Your task to perform on an android device: open app "Clock" Image 0: 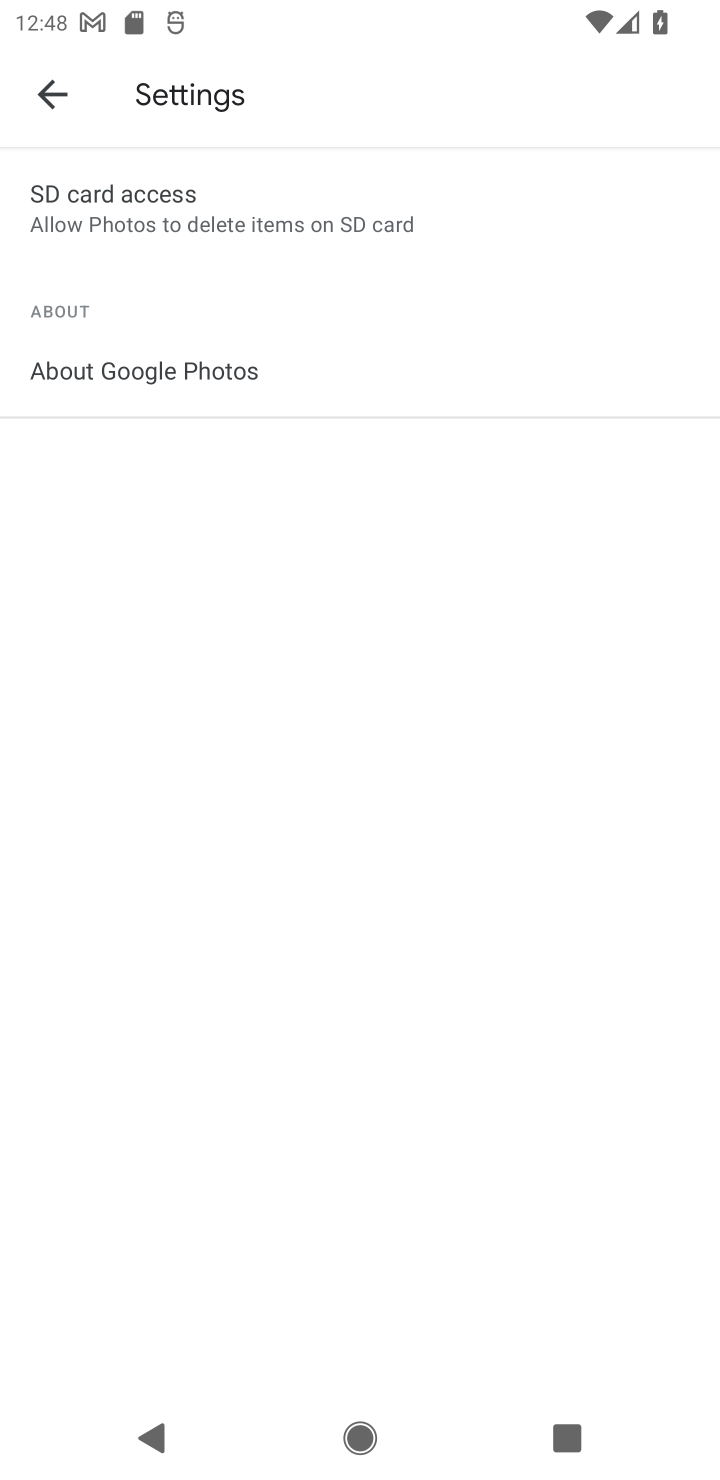
Step 0: press home button
Your task to perform on an android device: open app "Clock" Image 1: 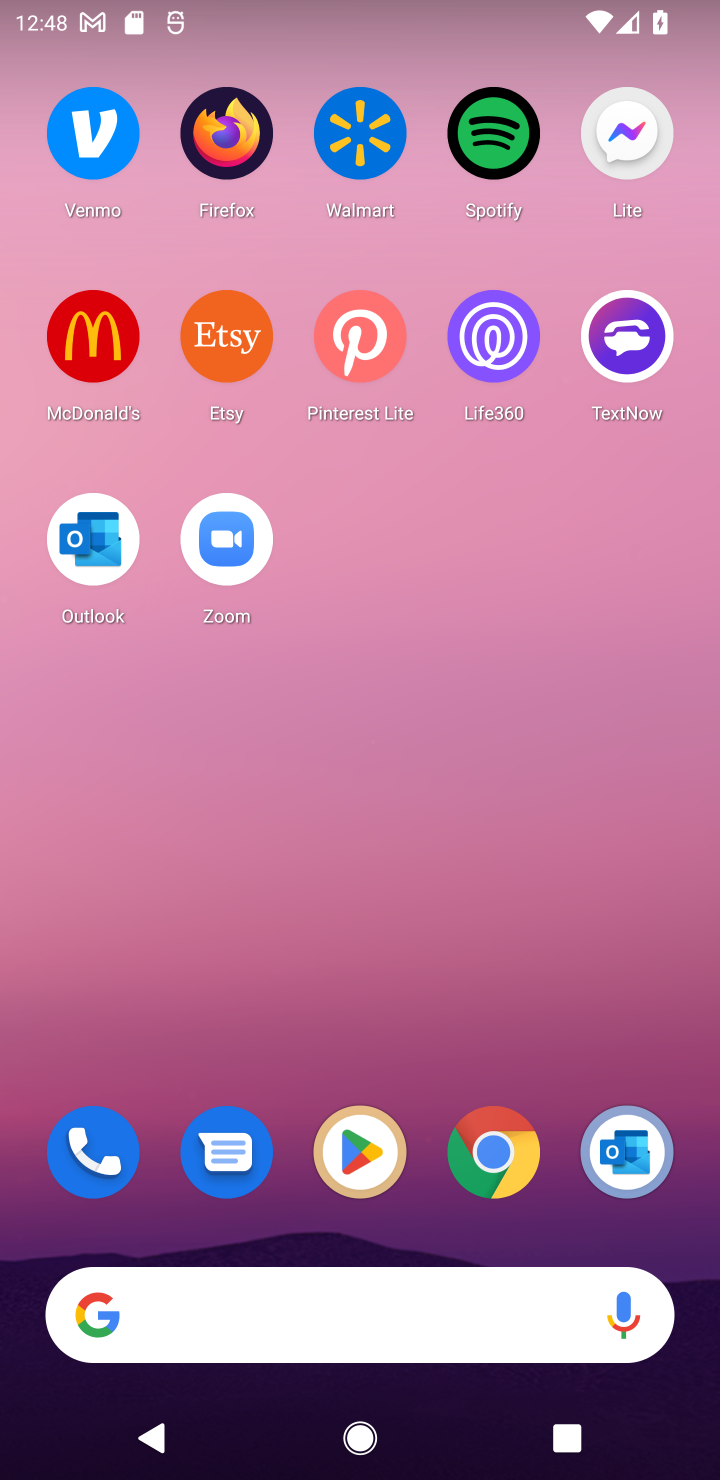
Step 1: click (347, 1142)
Your task to perform on an android device: open app "Clock" Image 2: 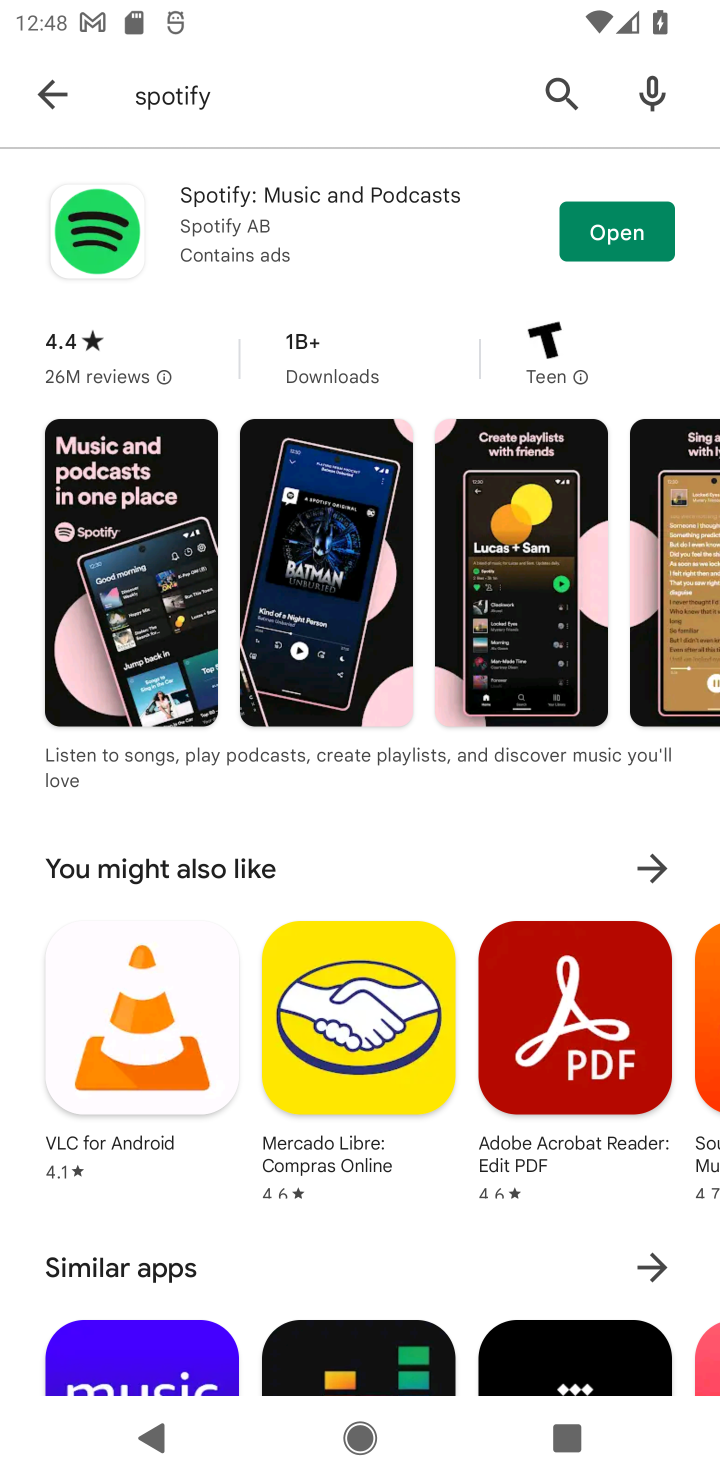
Step 2: click (45, 86)
Your task to perform on an android device: open app "Clock" Image 3: 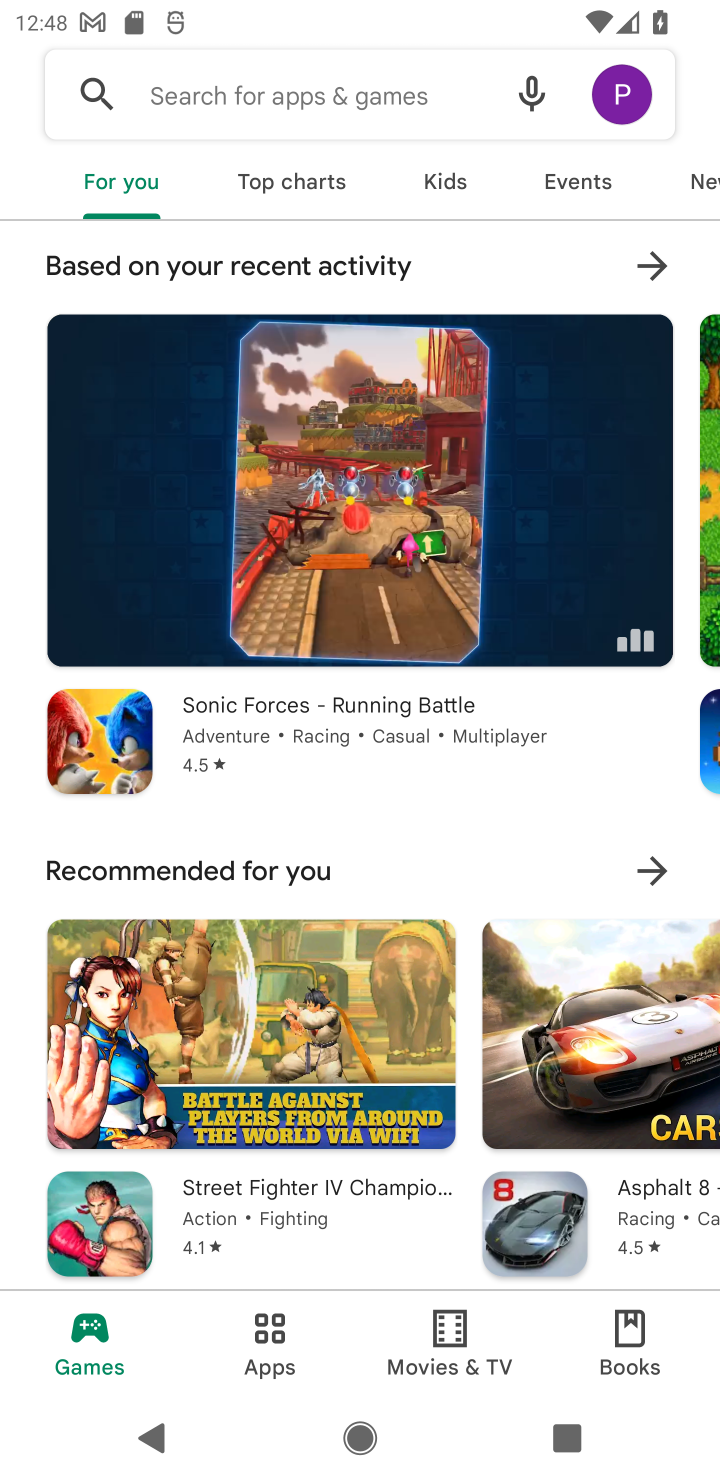
Step 3: click (250, 107)
Your task to perform on an android device: open app "Clock" Image 4: 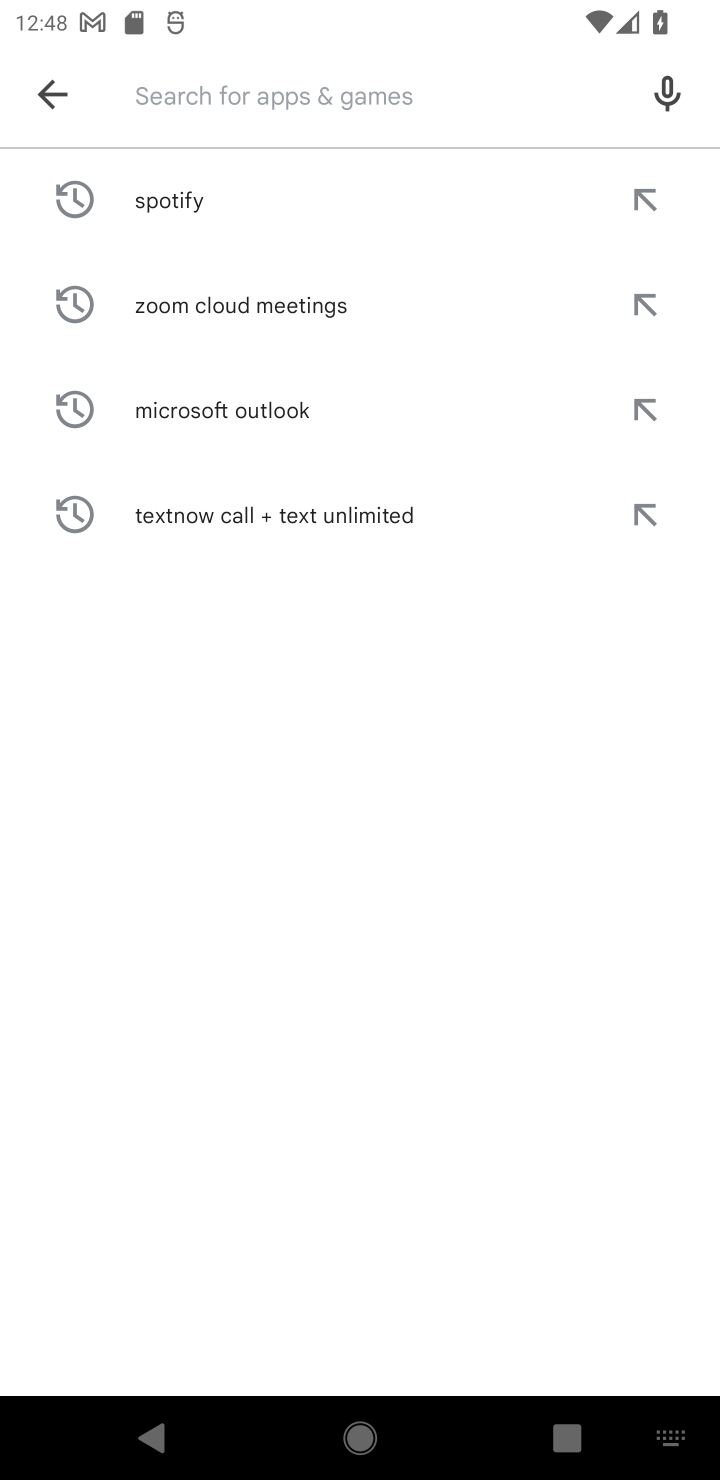
Step 4: type "Clock"
Your task to perform on an android device: open app "Clock" Image 5: 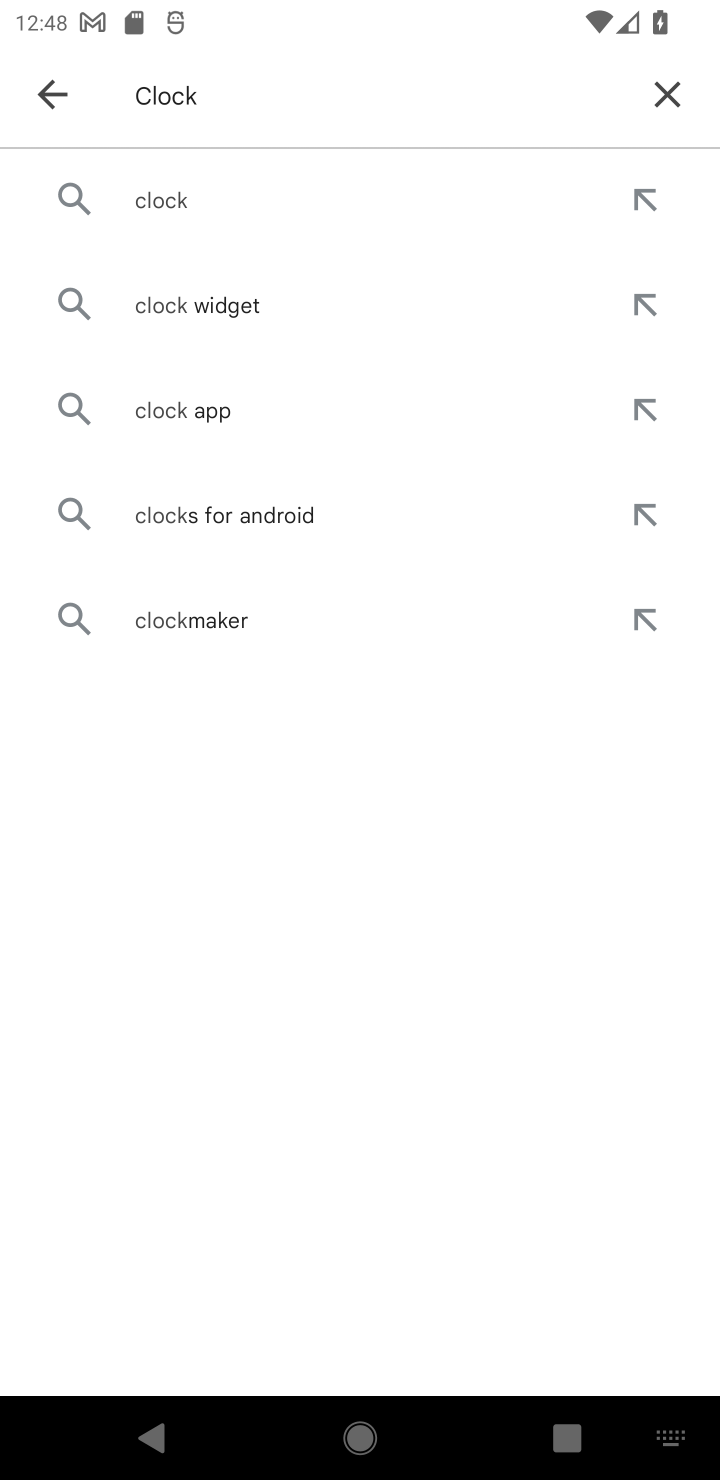
Step 5: click (164, 206)
Your task to perform on an android device: open app "Clock" Image 6: 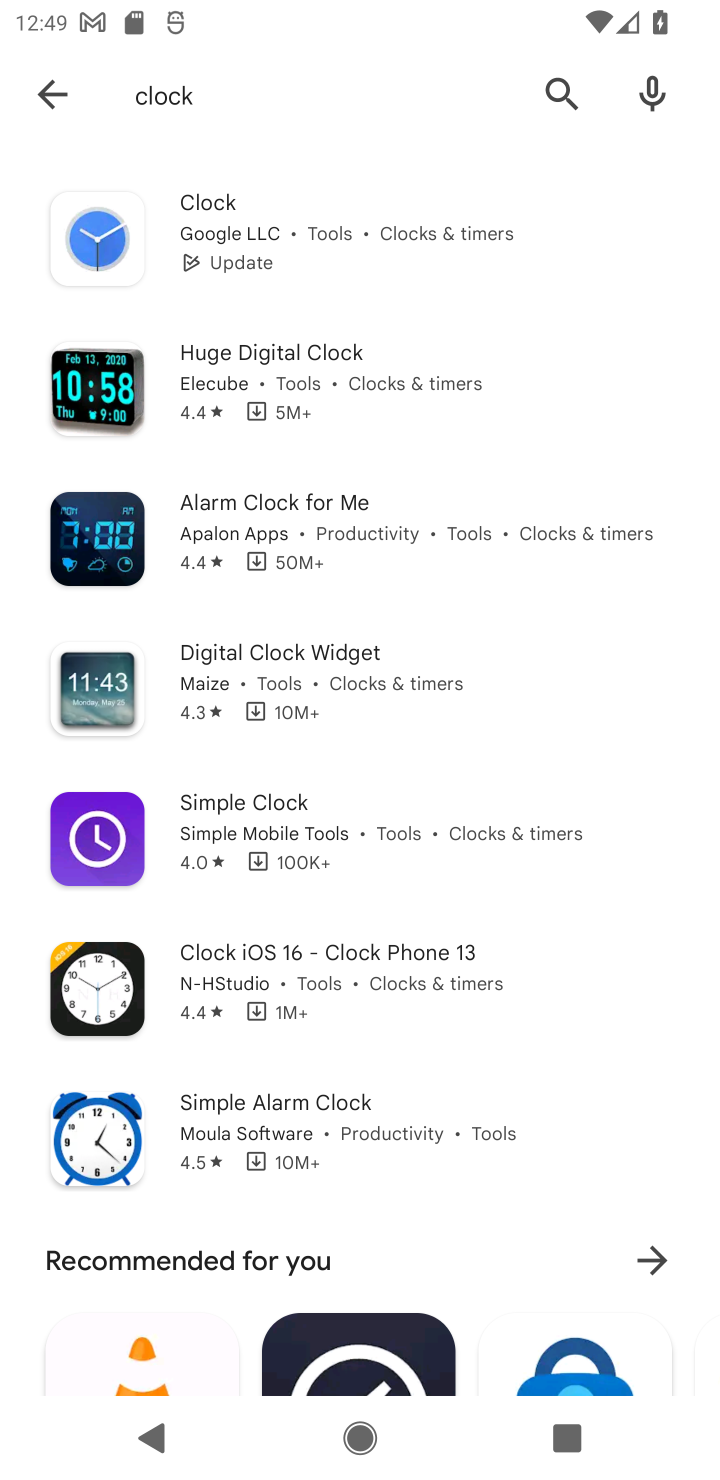
Step 6: click (164, 206)
Your task to perform on an android device: open app "Clock" Image 7: 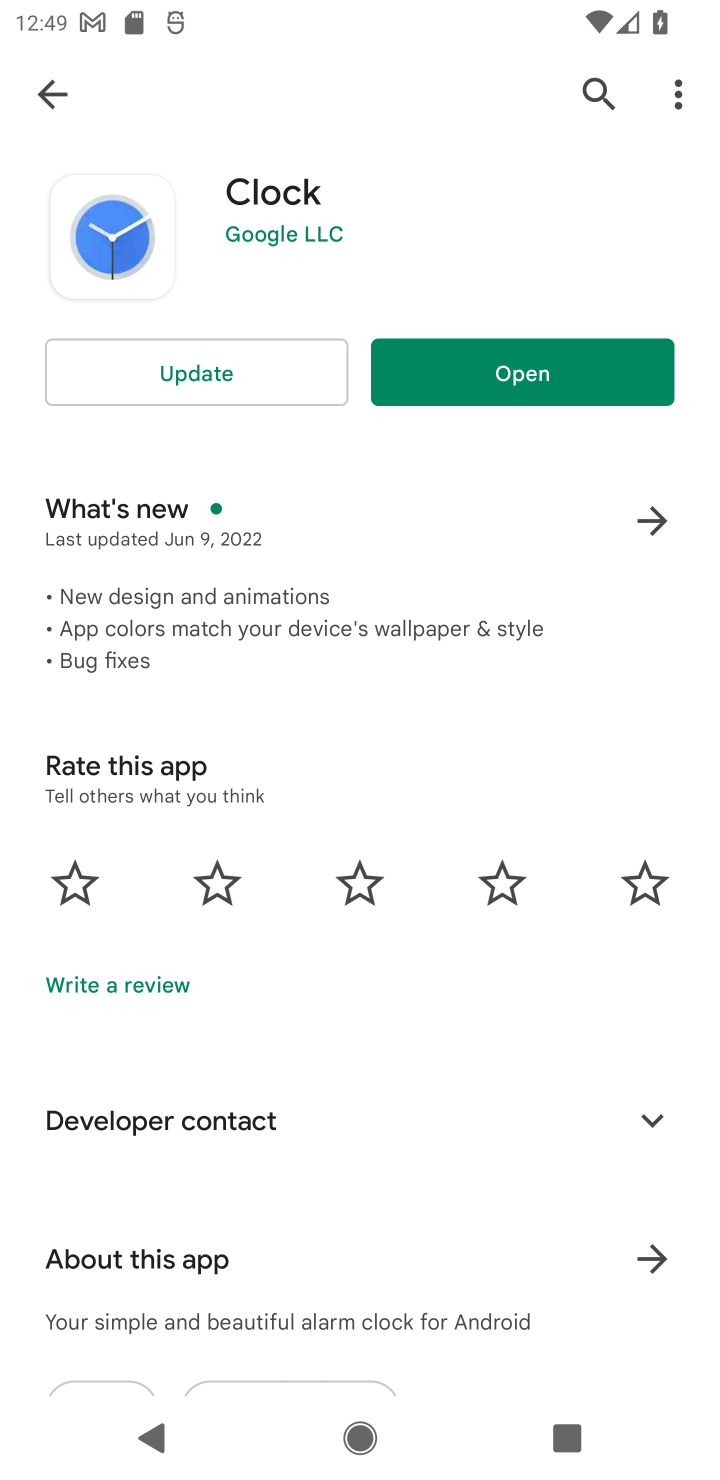
Step 7: click (548, 407)
Your task to perform on an android device: open app "Clock" Image 8: 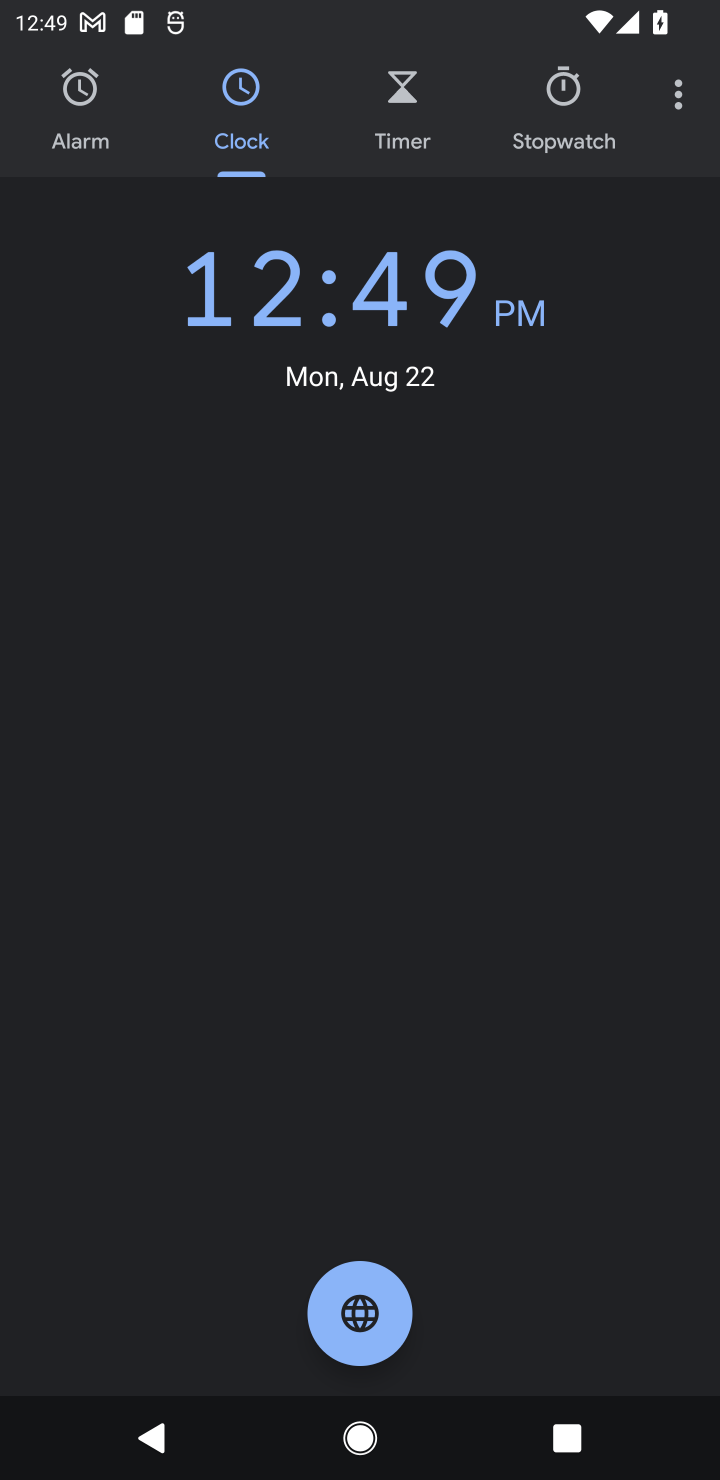
Step 8: task complete